Your task to perform on an android device: turn notification dots off Image 0: 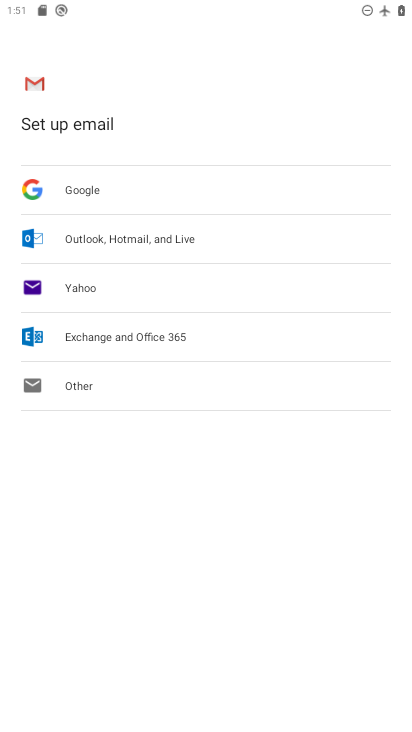
Step 0: press home button
Your task to perform on an android device: turn notification dots off Image 1: 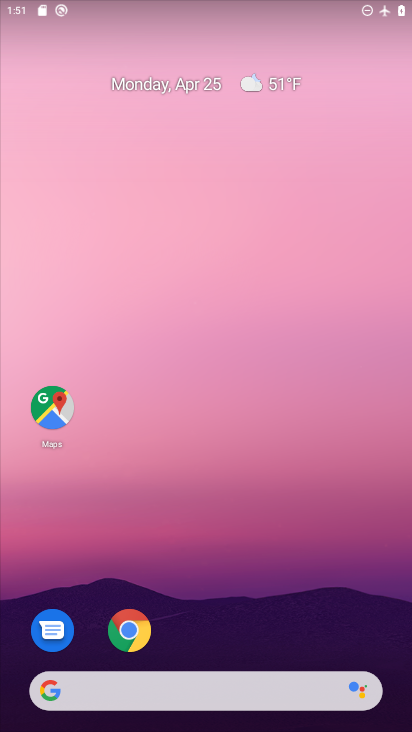
Step 1: drag from (289, 309) to (286, 27)
Your task to perform on an android device: turn notification dots off Image 2: 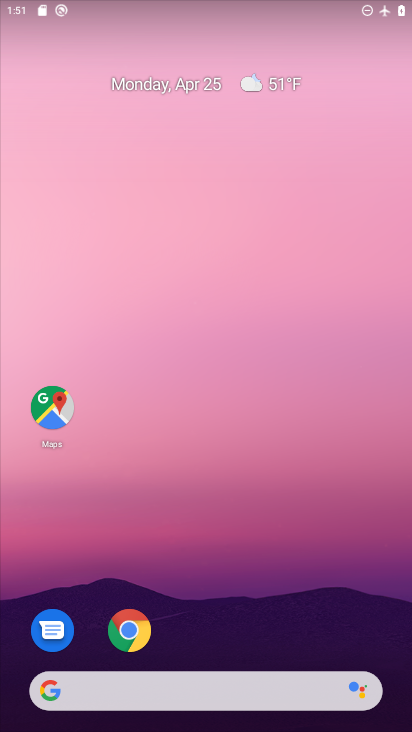
Step 2: drag from (320, 541) to (272, 31)
Your task to perform on an android device: turn notification dots off Image 3: 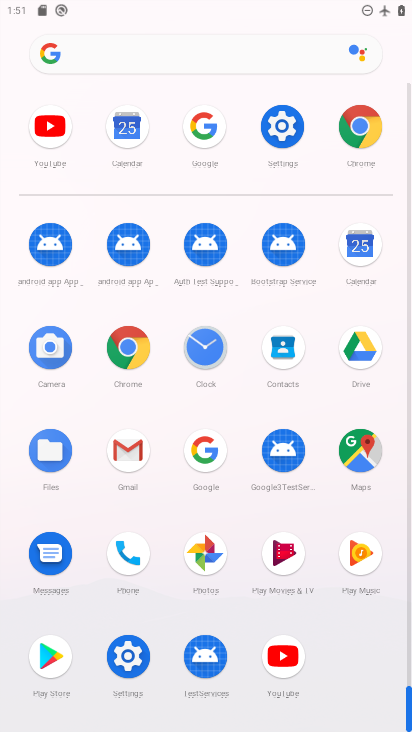
Step 3: click (283, 129)
Your task to perform on an android device: turn notification dots off Image 4: 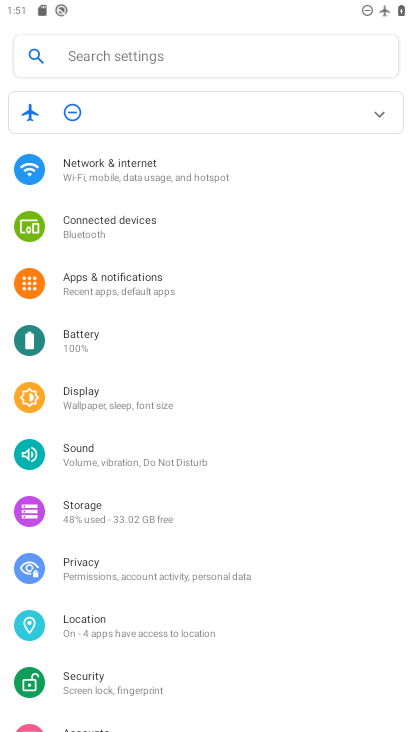
Step 4: click (135, 278)
Your task to perform on an android device: turn notification dots off Image 5: 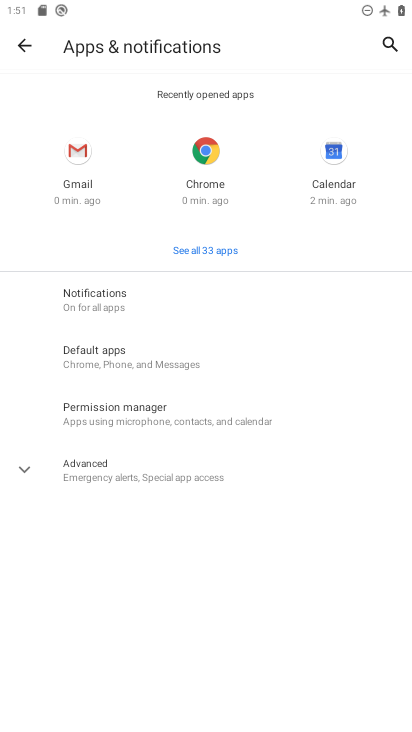
Step 5: click (102, 292)
Your task to perform on an android device: turn notification dots off Image 6: 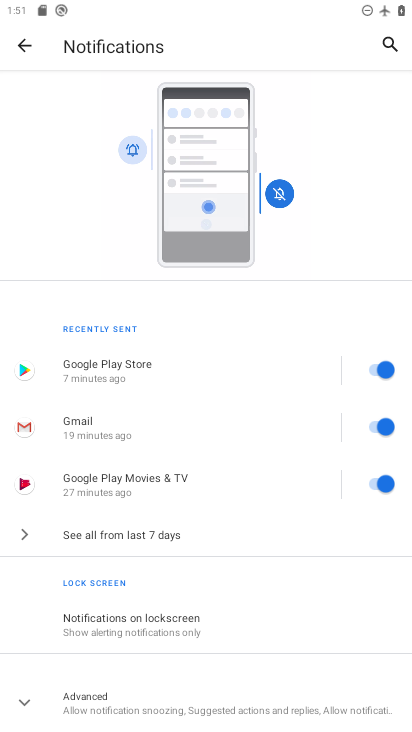
Step 6: drag from (231, 577) to (214, 117)
Your task to perform on an android device: turn notification dots off Image 7: 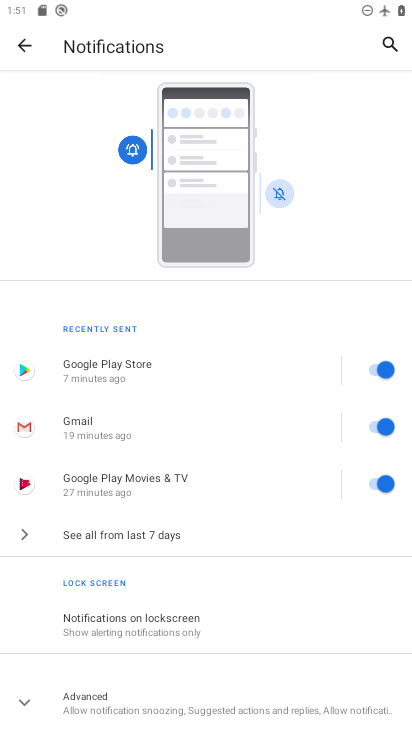
Step 7: click (194, 710)
Your task to perform on an android device: turn notification dots off Image 8: 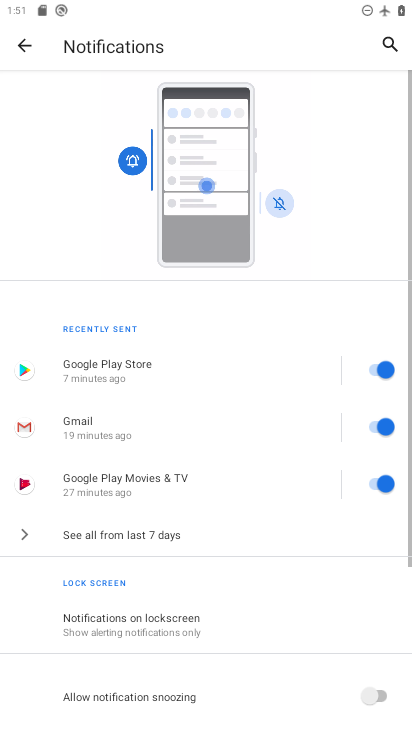
Step 8: drag from (197, 615) to (196, 190)
Your task to perform on an android device: turn notification dots off Image 9: 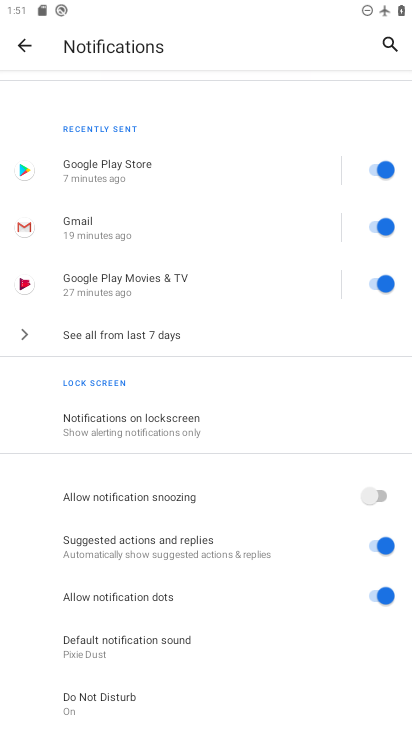
Step 9: drag from (252, 634) to (245, 241)
Your task to perform on an android device: turn notification dots off Image 10: 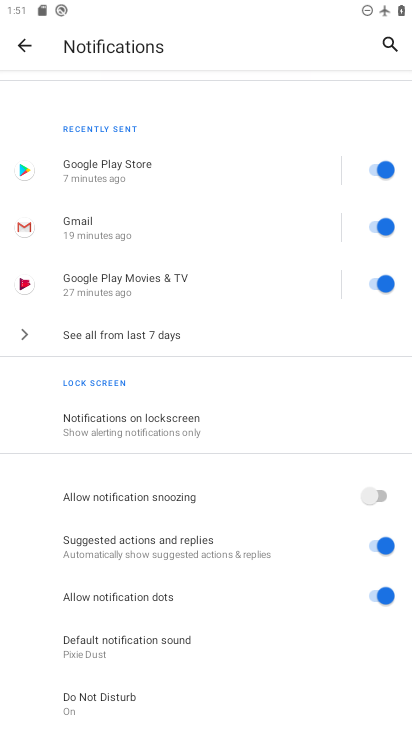
Step 10: click (382, 599)
Your task to perform on an android device: turn notification dots off Image 11: 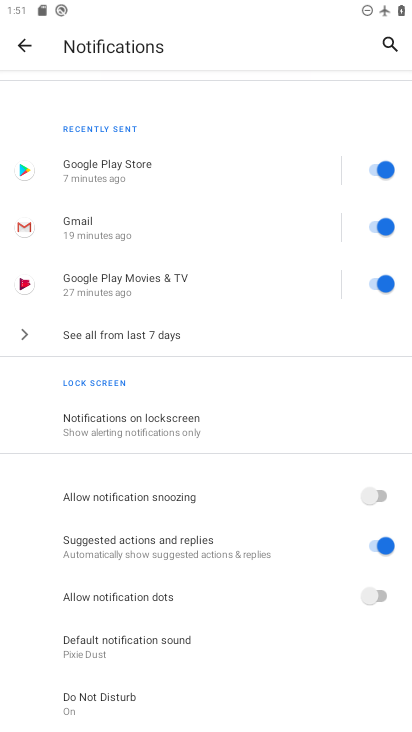
Step 11: task complete